Your task to perform on an android device: turn off data saver in the chrome app Image 0: 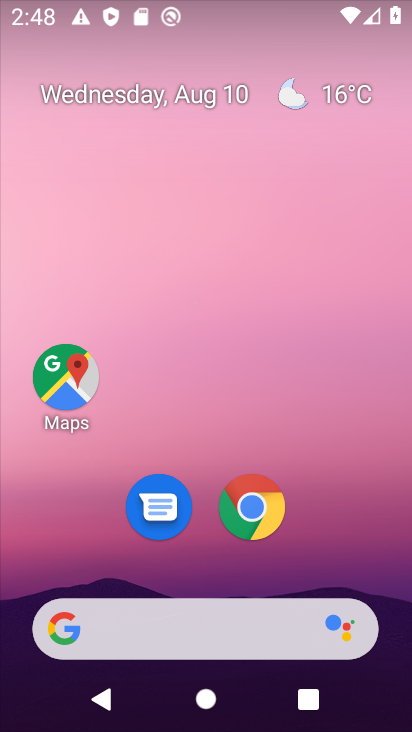
Step 0: drag from (267, 249) to (236, 118)
Your task to perform on an android device: turn off data saver in the chrome app Image 1: 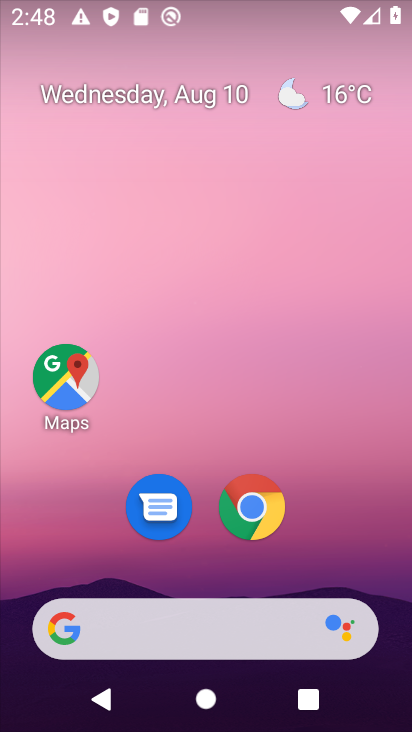
Step 1: drag from (338, 542) to (291, 108)
Your task to perform on an android device: turn off data saver in the chrome app Image 2: 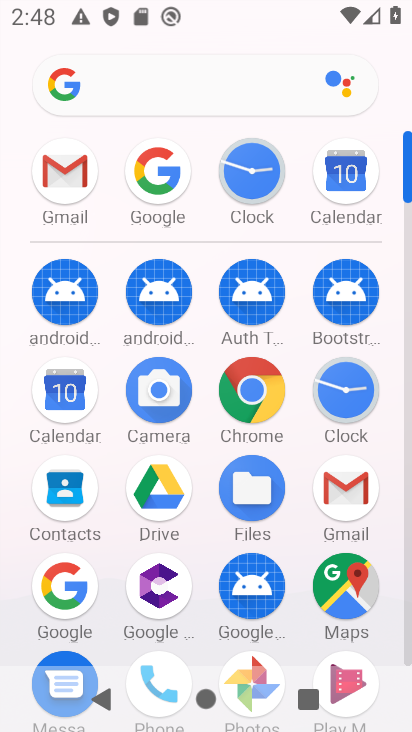
Step 2: click (245, 396)
Your task to perform on an android device: turn off data saver in the chrome app Image 3: 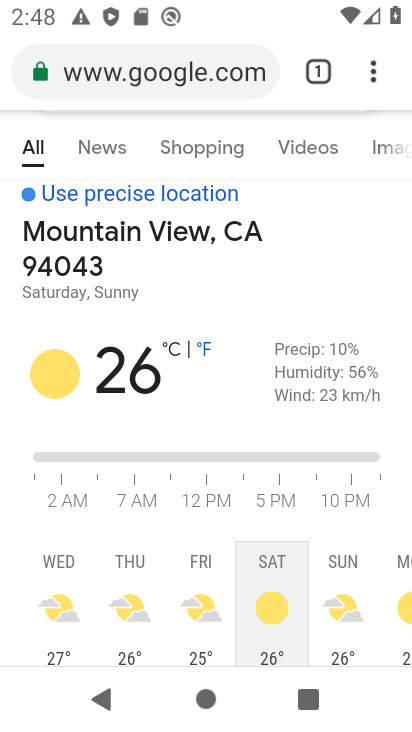
Step 3: drag from (371, 71) to (250, 505)
Your task to perform on an android device: turn off data saver in the chrome app Image 4: 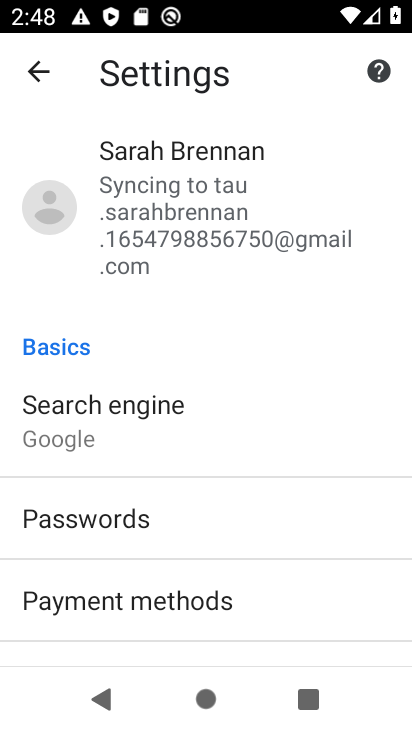
Step 4: drag from (204, 624) to (308, 228)
Your task to perform on an android device: turn off data saver in the chrome app Image 5: 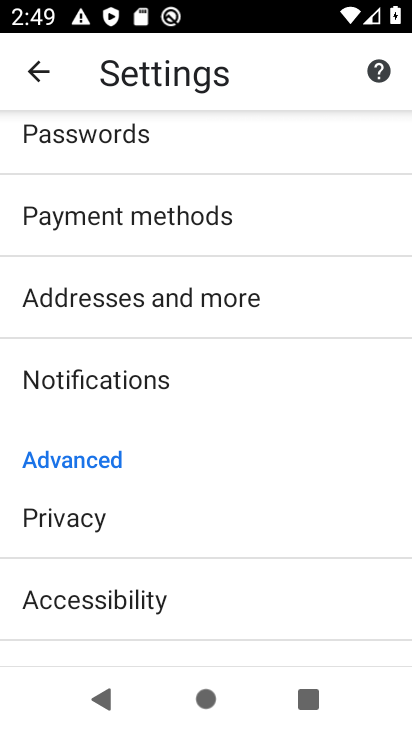
Step 5: drag from (189, 508) to (339, 143)
Your task to perform on an android device: turn off data saver in the chrome app Image 6: 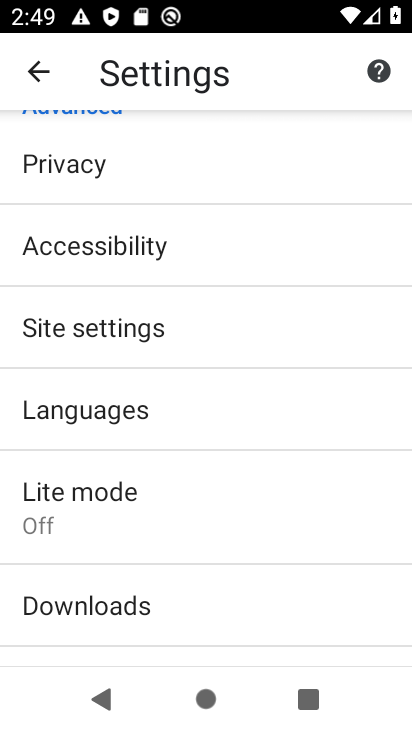
Step 6: click (85, 504)
Your task to perform on an android device: turn off data saver in the chrome app Image 7: 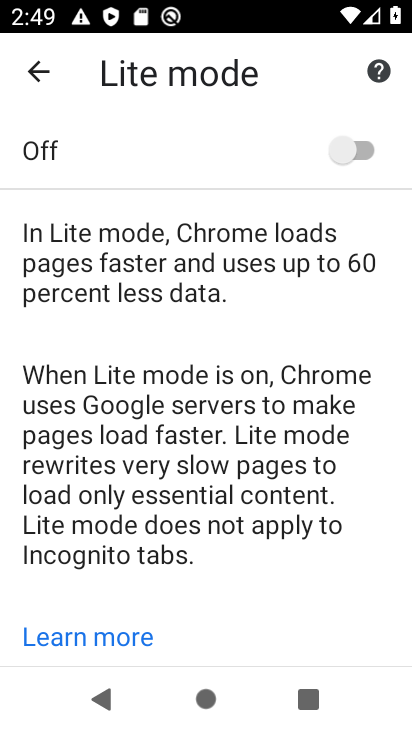
Step 7: task complete